Your task to perform on an android device: Open Google Image 0: 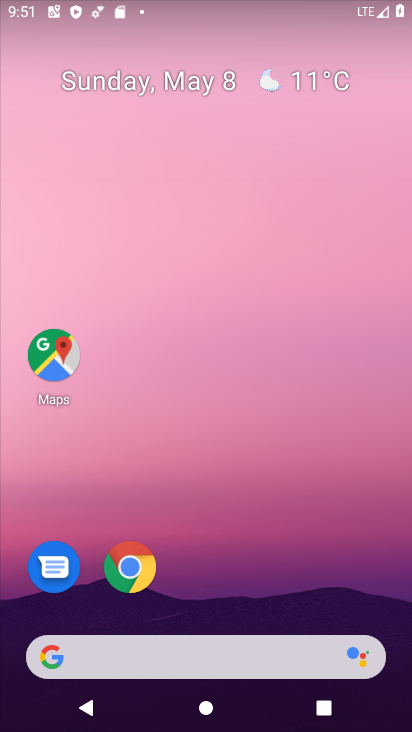
Step 0: click (174, 666)
Your task to perform on an android device: Open Google Image 1: 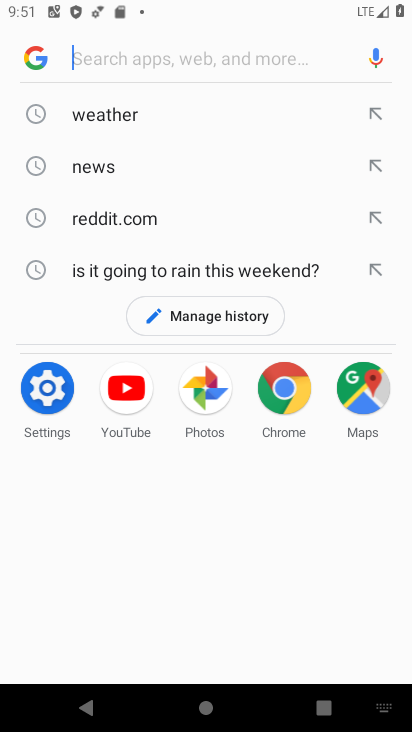
Step 1: task complete